Your task to perform on an android device: Add "logitech g pro" to the cart on amazon Image 0: 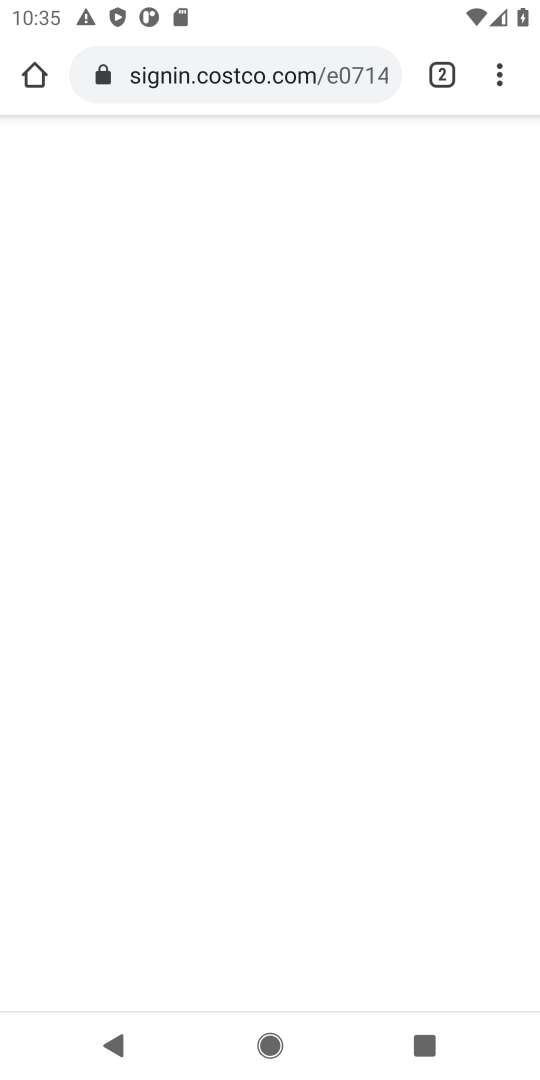
Step 0: press home button
Your task to perform on an android device: Add "logitech g pro" to the cart on amazon Image 1: 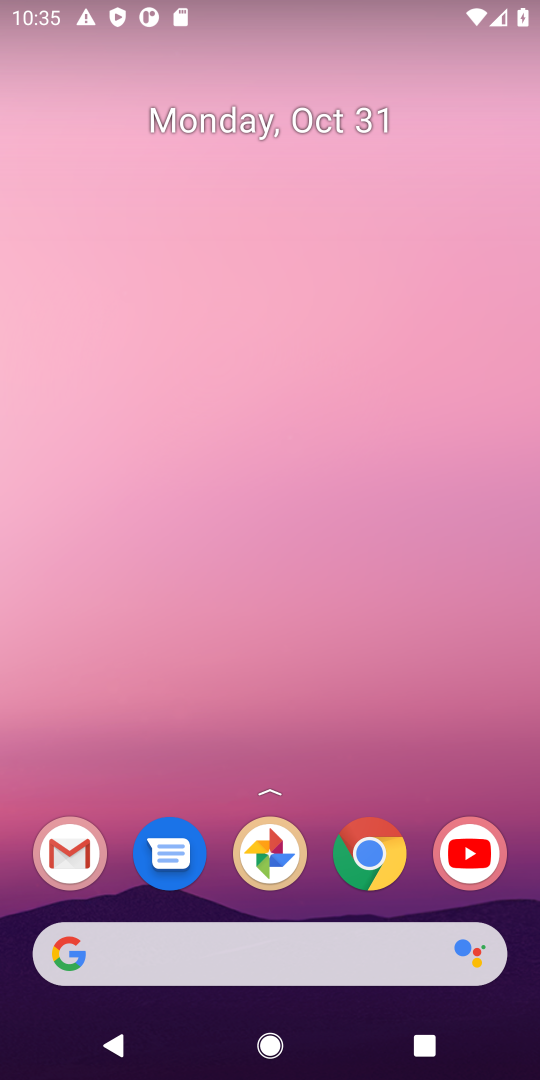
Step 1: click (350, 945)
Your task to perform on an android device: Add "logitech g pro" to the cart on amazon Image 2: 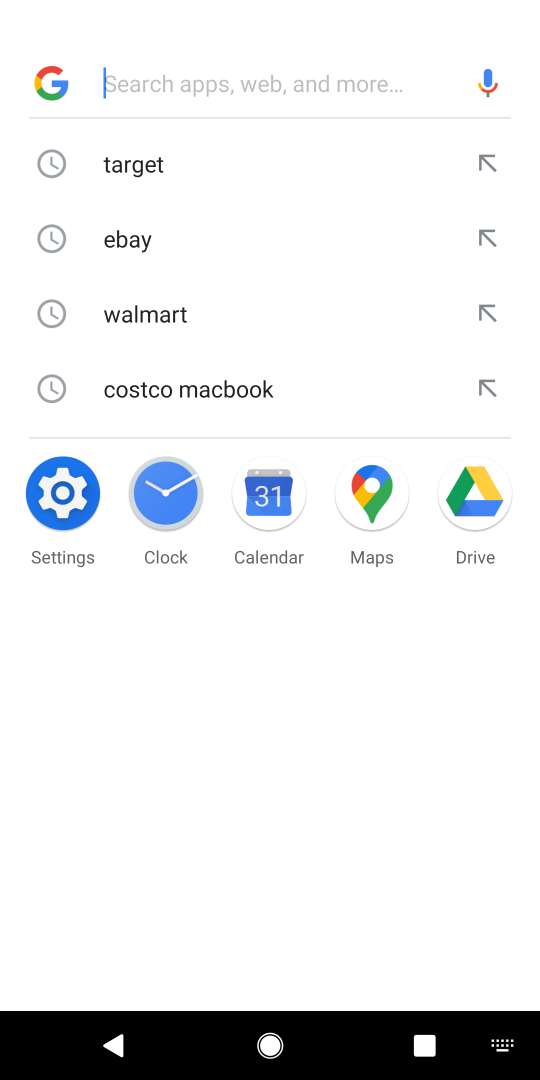
Step 2: type "amazon"
Your task to perform on an android device: Add "logitech g pro" to the cart on amazon Image 3: 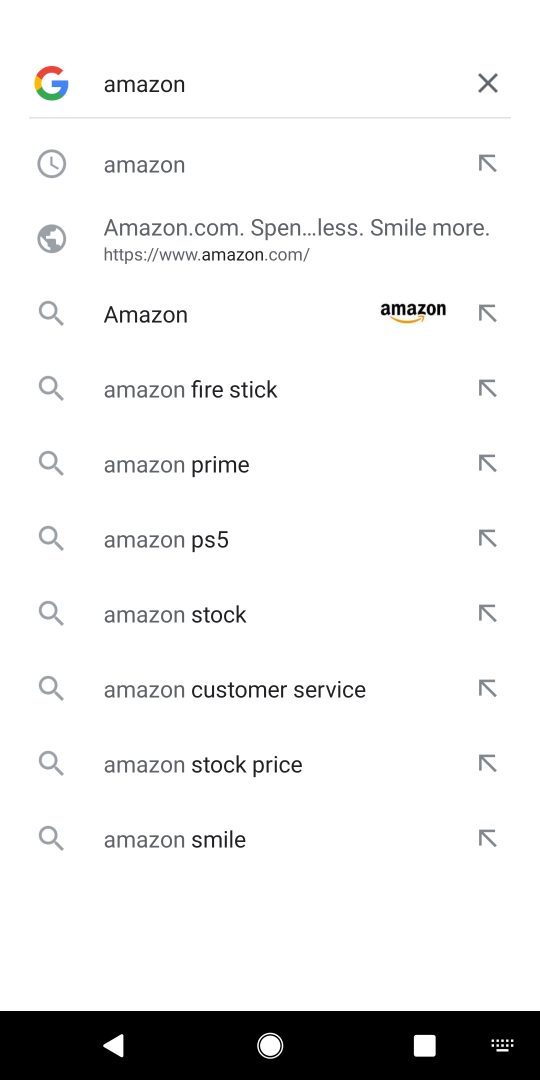
Step 3: type ""
Your task to perform on an android device: Add "logitech g pro" to the cart on amazon Image 4: 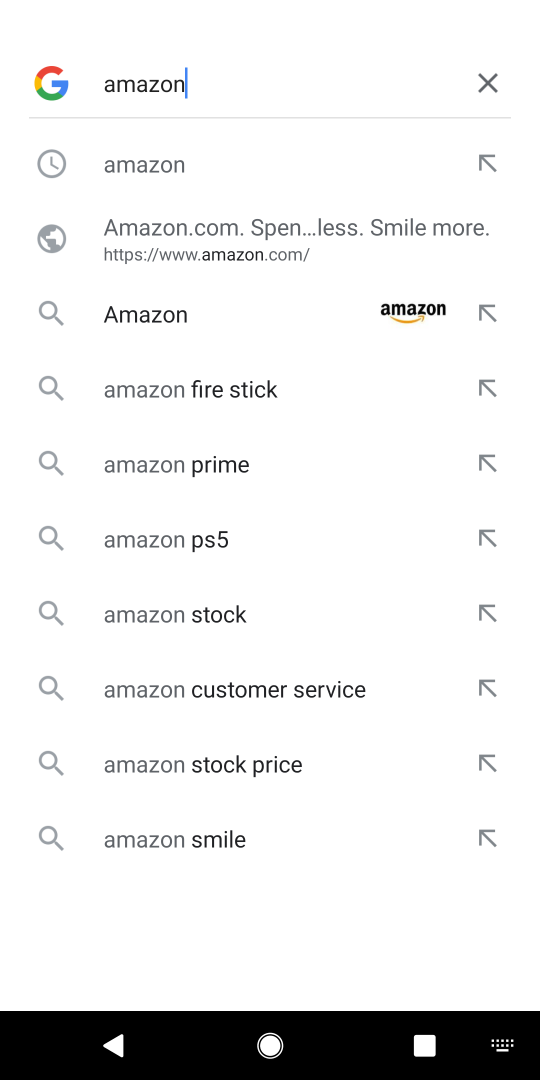
Step 4: click (198, 245)
Your task to perform on an android device: Add "logitech g pro" to the cart on amazon Image 5: 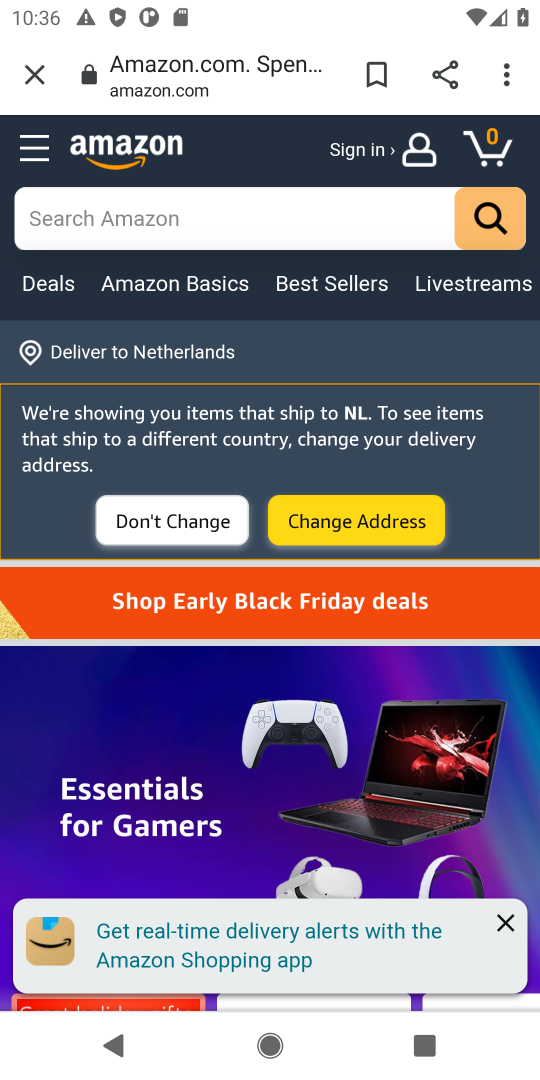
Step 5: drag from (258, 599) to (231, 312)
Your task to perform on an android device: Add "logitech g pro" to the cart on amazon Image 6: 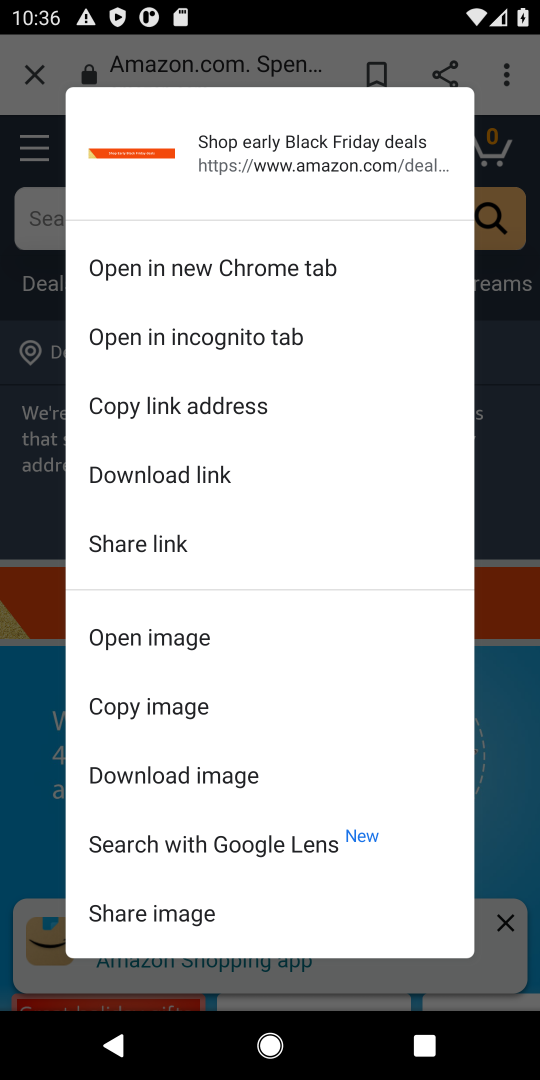
Step 6: click (523, 440)
Your task to perform on an android device: Add "logitech g pro" to the cart on amazon Image 7: 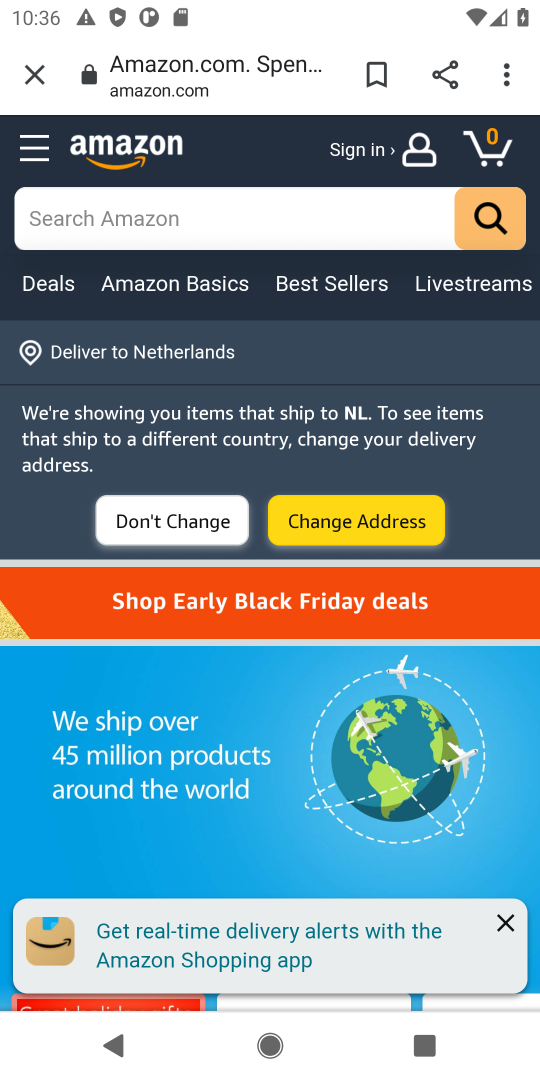
Step 7: drag from (499, 612) to (435, 169)
Your task to perform on an android device: Add "logitech g pro" to the cart on amazon Image 8: 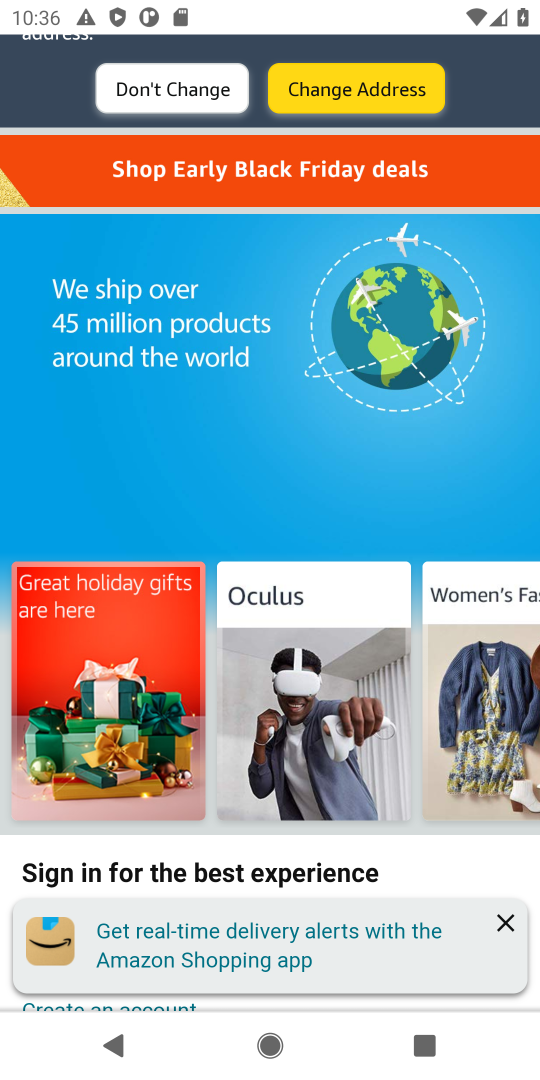
Step 8: drag from (183, 176) to (227, 1079)
Your task to perform on an android device: Add "logitech g pro" to the cart on amazon Image 9: 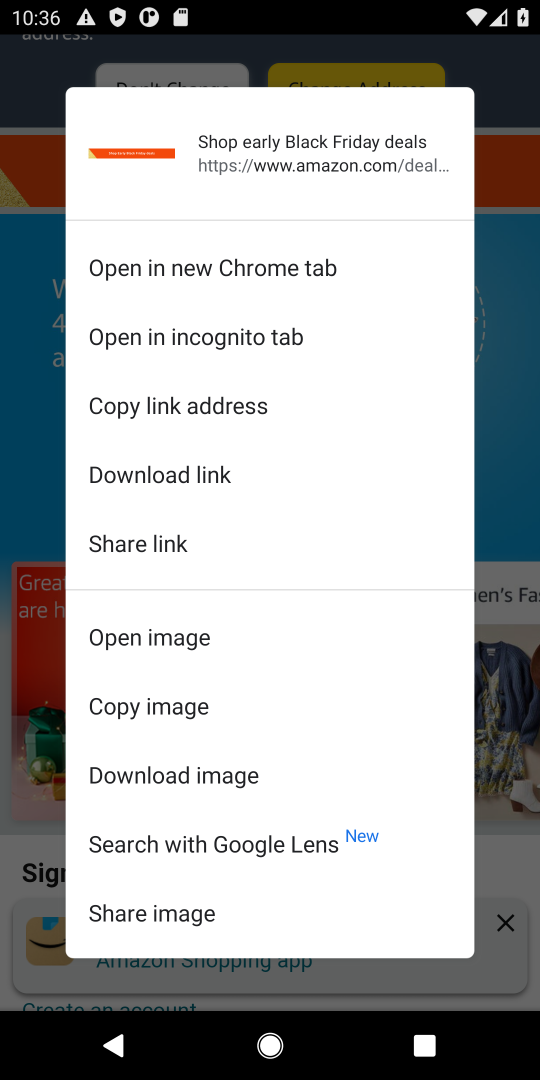
Step 9: click (503, 567)
Your task to perform on an android device: Add "logitech g pro" to the cart on amazon Image 10: 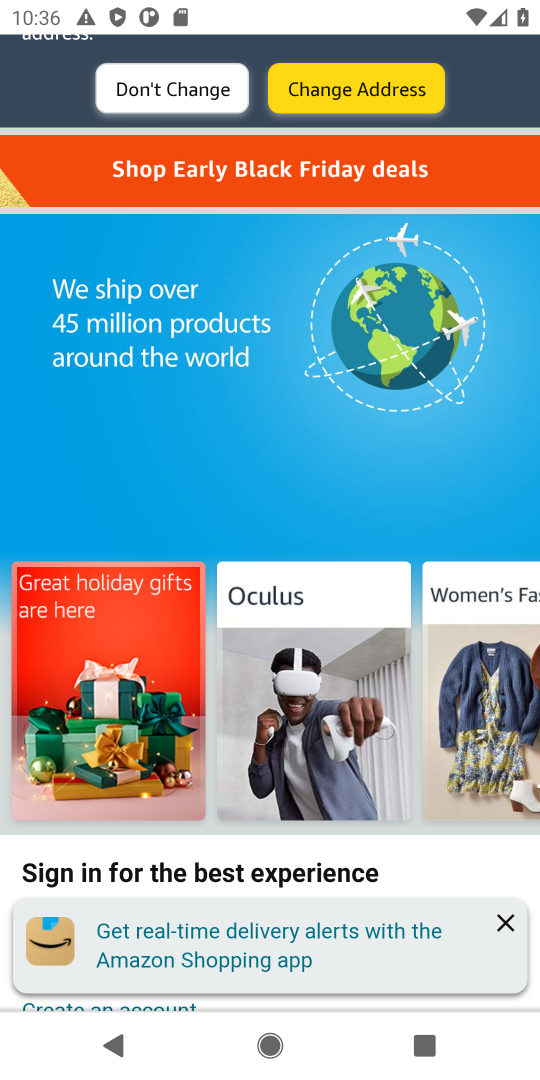
Step 10: drag from (261, 234) to (396, 1074)
Your task to perform on an android device: Add "logitech g pro" to the cart on amazon Image 11: 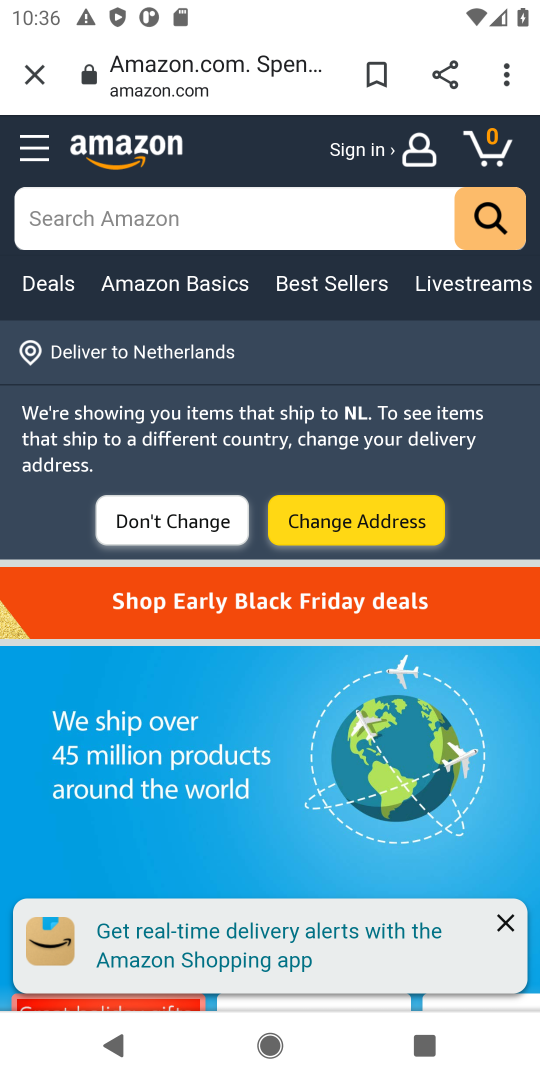
Step 11: drag from (322, 186) to (338, 885)
Your task to perform on an android device: Add "logitech g pro" to the cart on amazon Image 12: 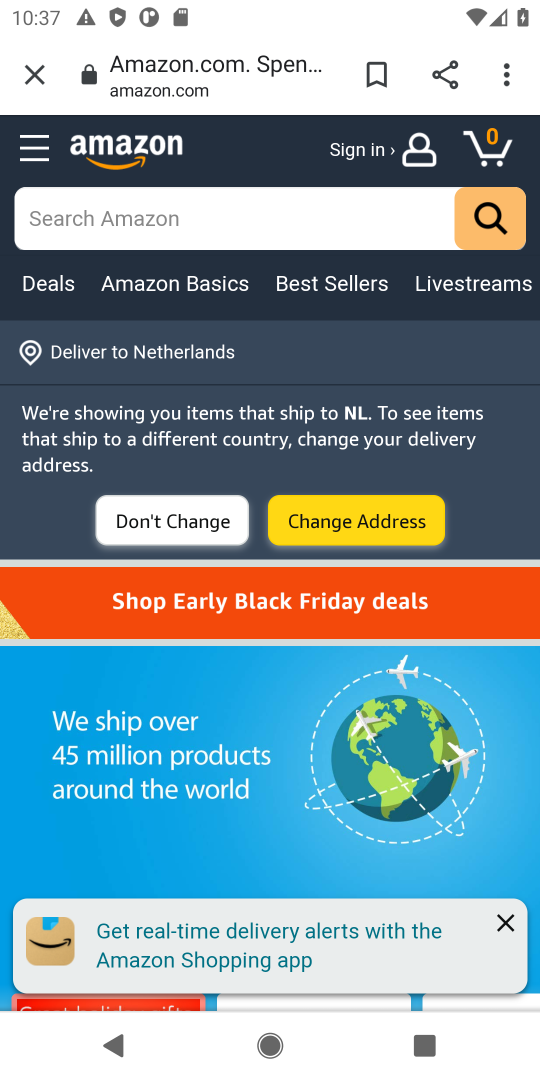
Step 12: click (171, 193)
Your task to perform on an android device: Add "logitech g pro" to the cart on amazon Image 13: 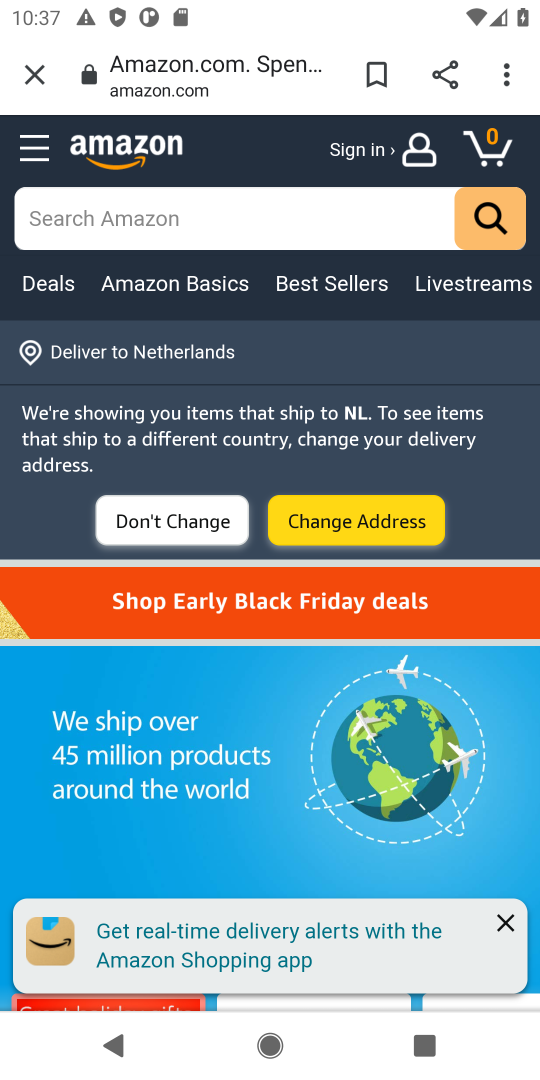
Step 13: click (143, 204)
Your task to perform on an android device: Add "logitech g pro" to the cart on amazon Image 14: 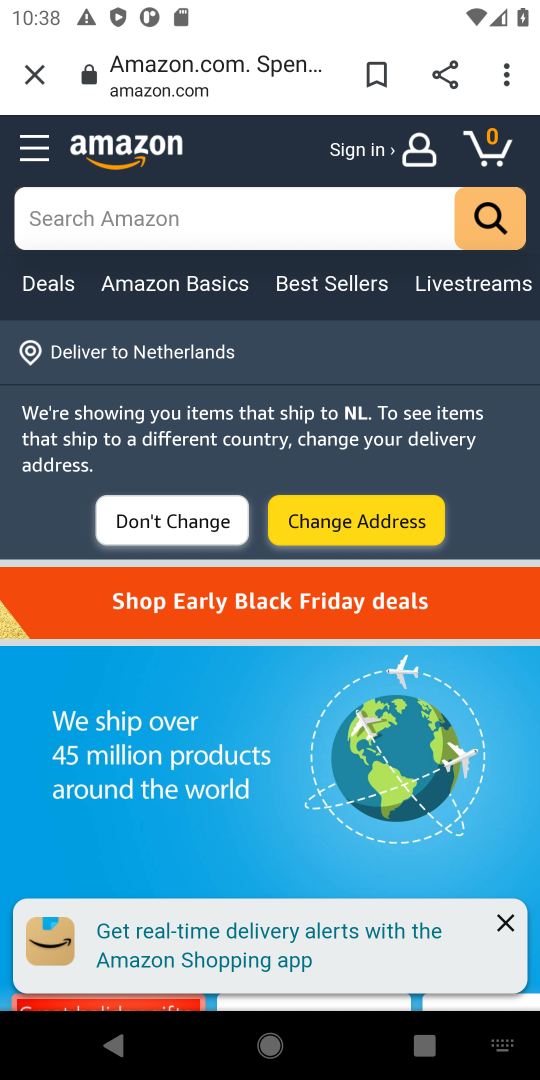
Step 14: task complete